Your task to perform on an android device: Clear all items from cart on amazon. Search for razer nari on amazon, select the first entry, add it to the cart, then select checkout. Image 0: 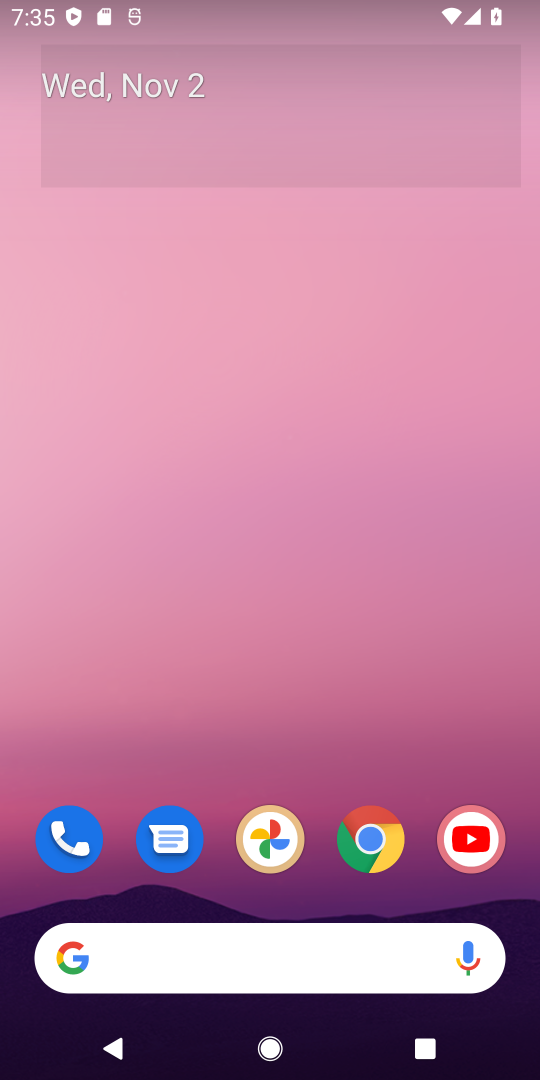
Step 0: click (369, 840)
Your task to perform on an android device: Clear all items from cart on amazon. Search for razer nari on amazon, select the first entry, add it to the cart, then select checkout. Image 1: 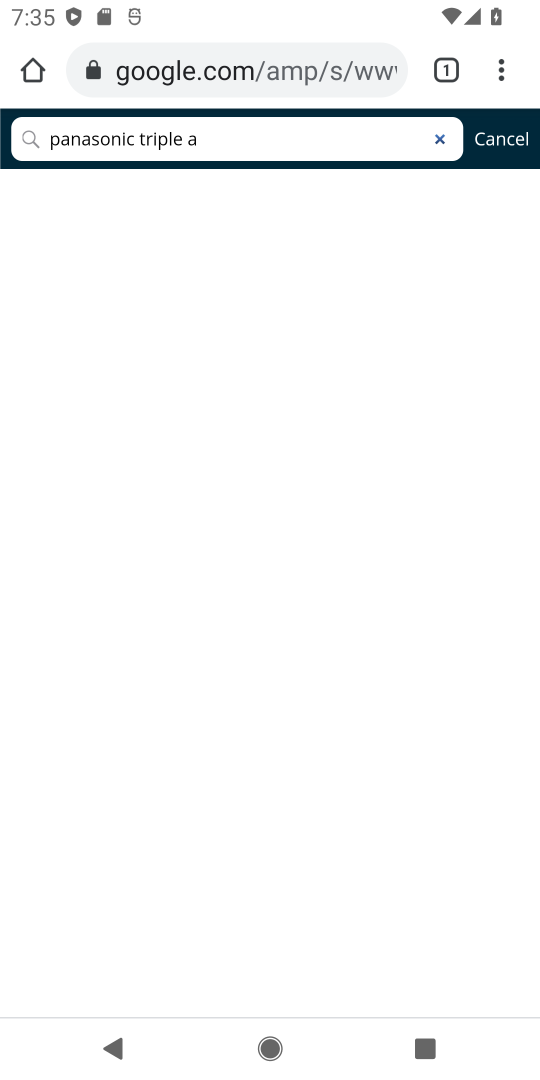
Step 1: click (348, 60)
Your task to perform on an android device: Clear all items from cart on amazon. Search for razer nari on amazon, select the first entry, add it to the cart, then select checkout. Image 2: 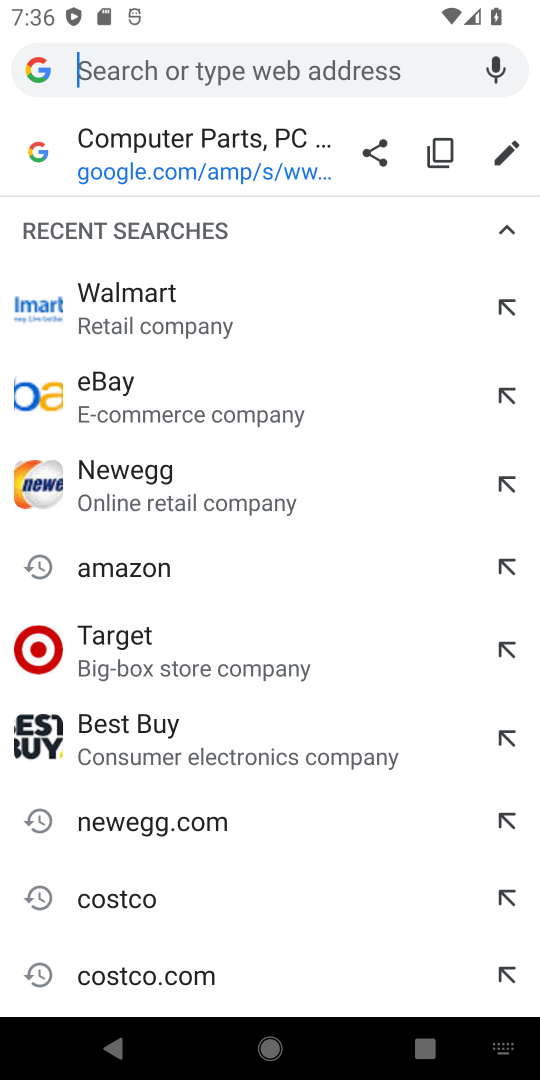
Step 2: type "amazon"
Your task to perform on an android device: Clear all items from cart on amazon. Search for razer nari on amazon, select the first entry, add it to the cart, then select checkout. Image 3: 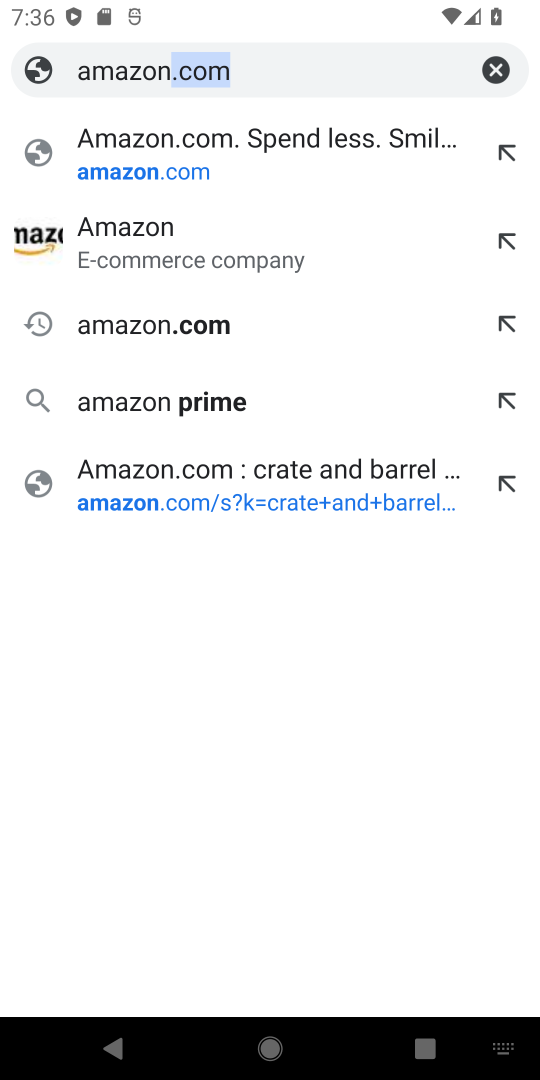
Step 3: click (202, 241)
Your task to perform on an android device: Clear all items from cart on amazon. Search for razer nari on amazon, select the first entry, add it to the cart, then select checkout. Image 4: 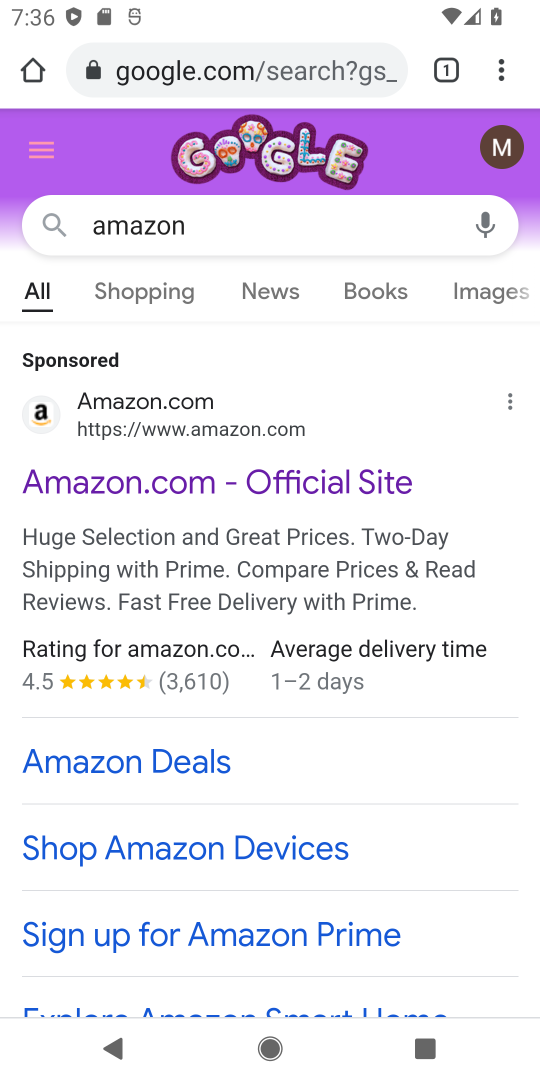
Step 4: drag from (365, 763) to (371, 376)
Your task to perform on an android device: Clear all items from cart on amazon. Search for razer nari on amazon, select the first entry, add it to the cart, then select checkout. Image 5: 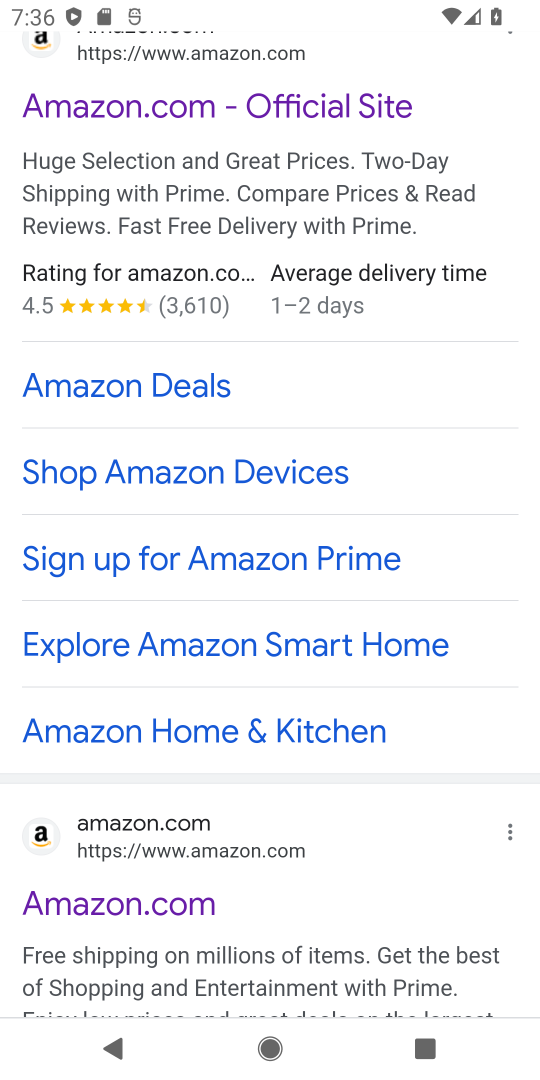
Step 5: click (281, 899)
Your task to perform on an android device: Clear all items from cart on amazon. Search for razer nari on amazon, select the first entry, add it to the cart, then select checkout. Image 6: 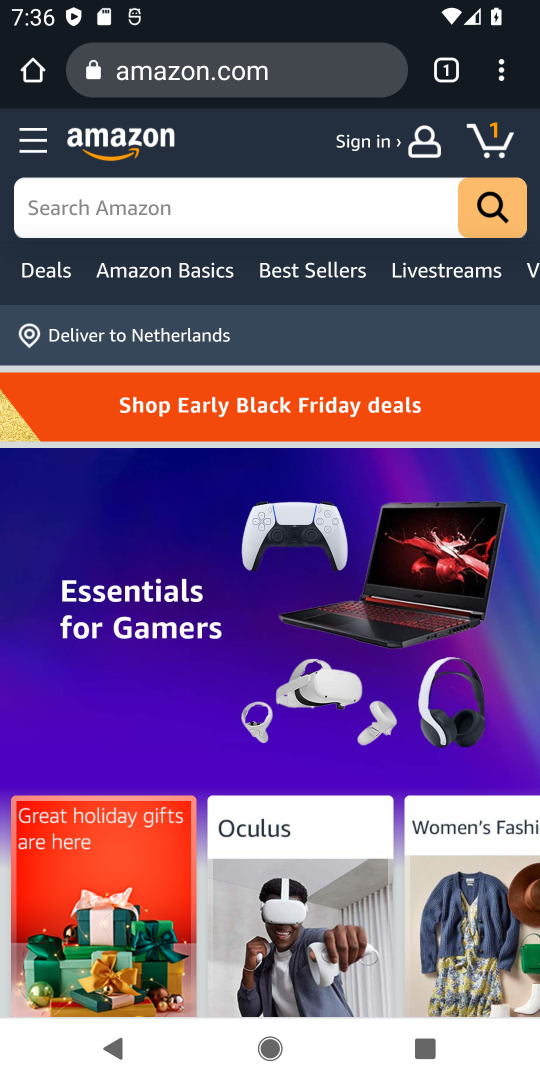
Step 6: click (504, 130)
Your task to perform on an android device: Clear all items from cart on amazon. Search for razer nari on amazon, select the first entry, add it to the cart, then select checkout. Image 7: 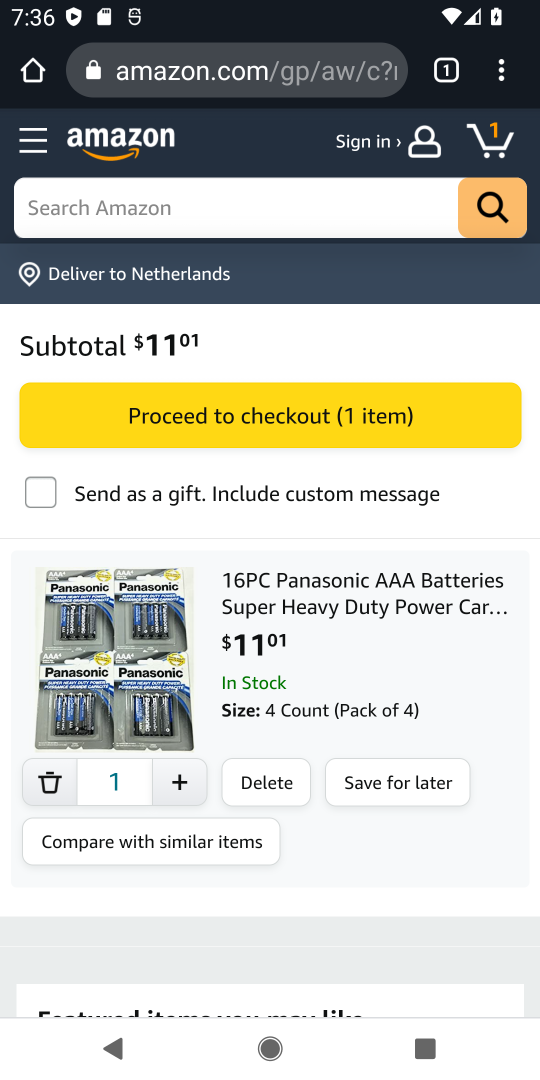
Step 7: click (273, 777)
Your task to perform on an android device: Clear all items from cart on amazon. Search for razer nari on amazon, select the first entry, add it to the cart, then select checkout. Image 8: 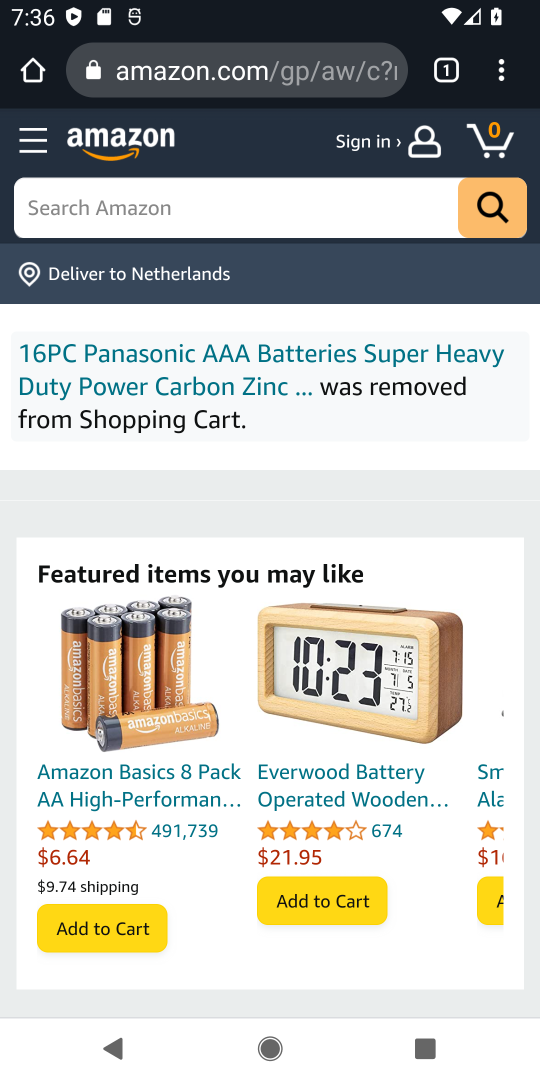
Step 8: click (350, 204)
Your task to perform on an android device: Clear all items from cart on amazon. Search for razer nari on amazon, select the first entry, add it to the cart, then select checkout. Image 9: 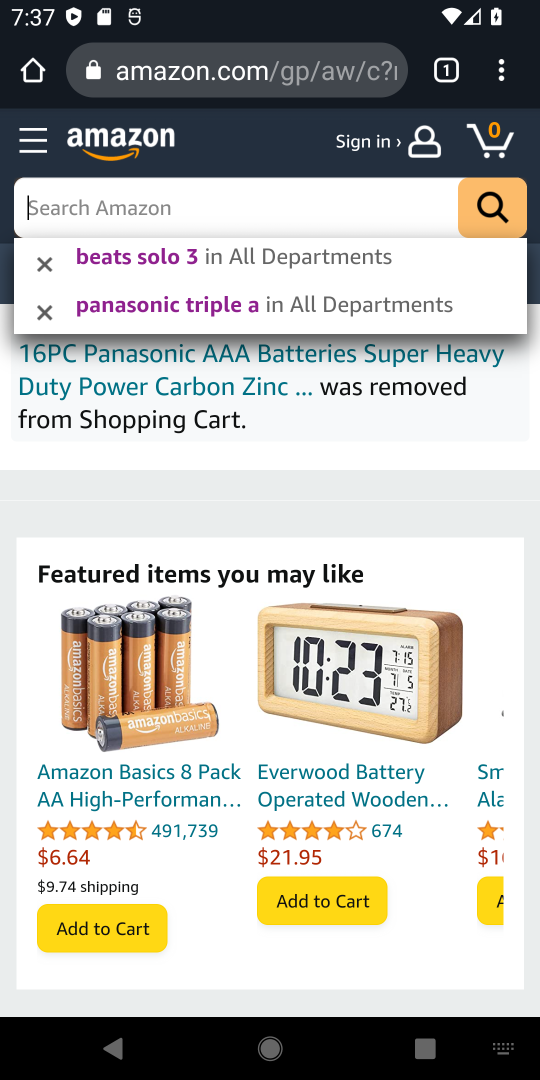
Step 9: type "razer nari"
Your task to perform on an android device: Clear all items from cart on amazon. Search for razer nari on amazon, select the first entry, add it to the cart, then select checkout. Image 10: 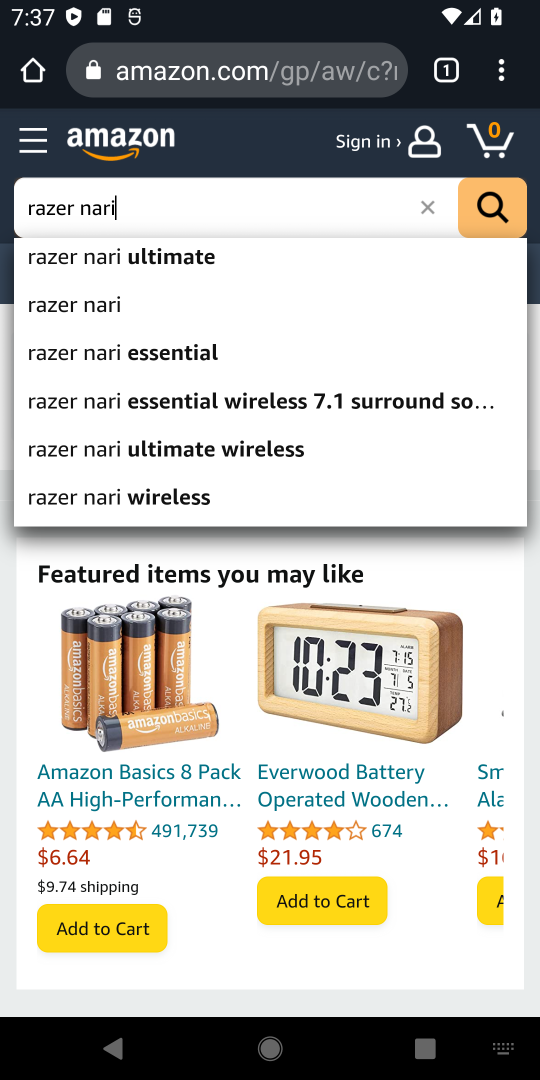
Step 10: click (486, 211)
Your task to perform on an android device: Clear all items from cart on amazon. Search for razer nari on amazon, select the first entry, add it to the cart, then select checkout. Image 11: 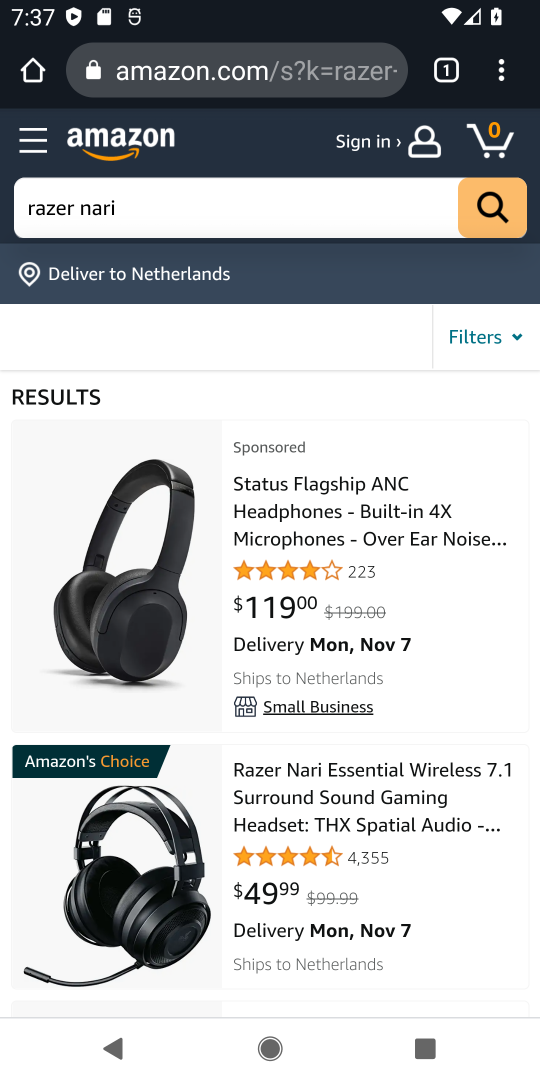
Step 11: drag from (401, 929) to (443, 631)
Your task to perform on an android device: Clear all items from cart on amazon. Search for razer nari on amazon, select the first entry, add it to the cart, then select checkout. Image 12: 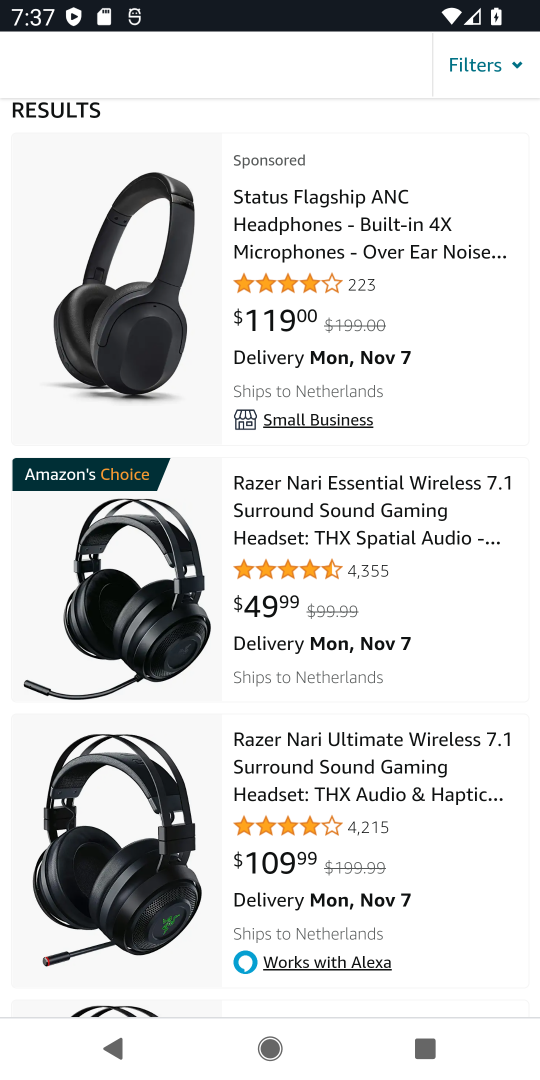
Step 12: click (389, 497)
Your task to perform on an android device: Clear all items from cart on amazon. Search for razer nari on amazon, select the first entry, add it to the cart, then select checkout. Image 13: 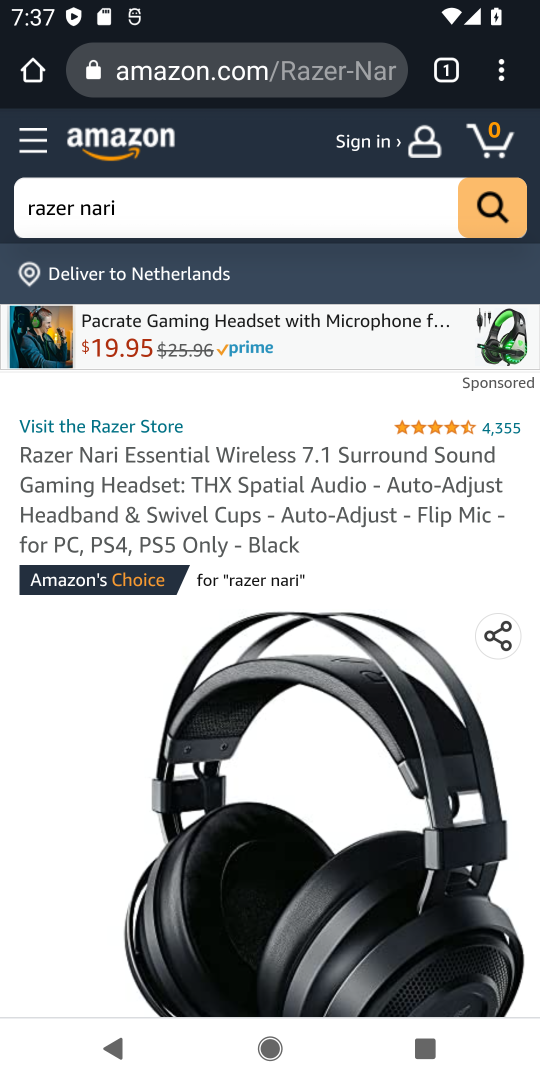
Step 13: drag from (304, 752) to (310, 391)
Your task to perform on an android device: Clear all items from cart on amazon. Search for razer nari on amazon, select the first entry, add it to the cart, then select checkout. Image 14: 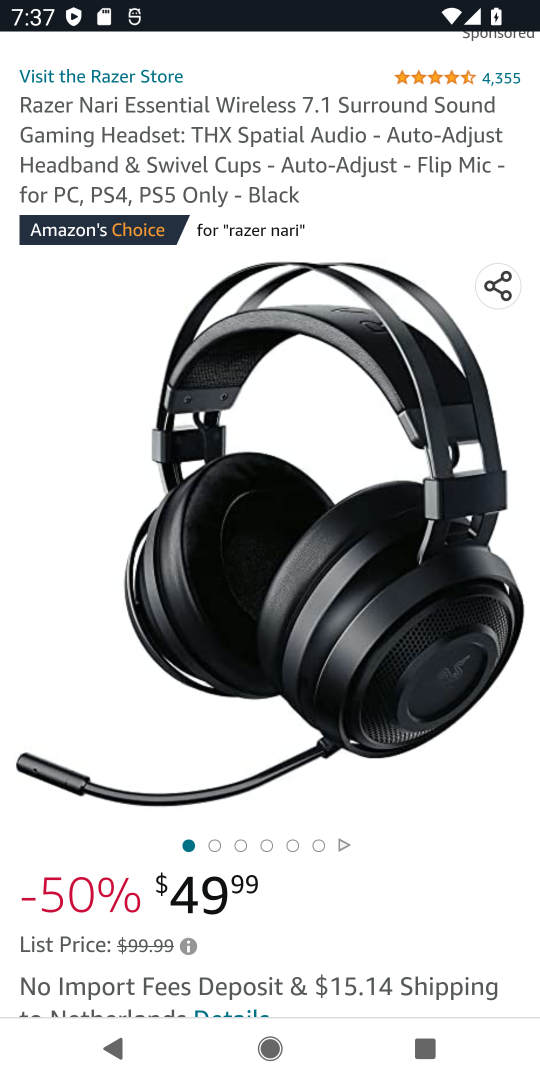
Step 14: drag from (236, 724) to (269, 172)
Your task to perform on an android device: Clear all items from cart on amazon. Search for razer nari on amazon, select the first entry, add it to the cart, then select checkout. Image 15: 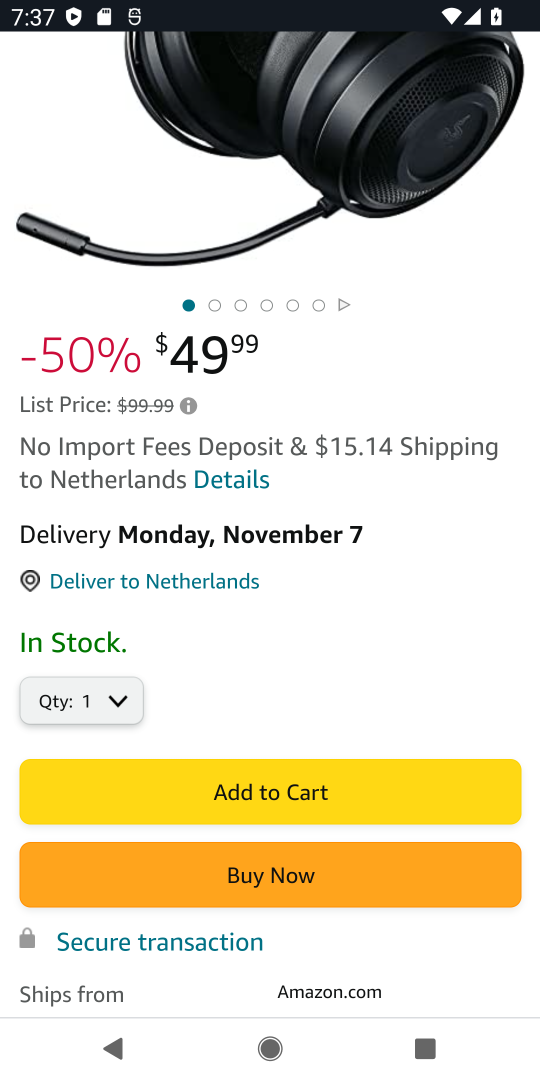
Step 15: click (270, 788)
Your task to perform on an android device: Clear all items from cart on amazon. Search for razer nari on amazon, select the first entry, add it to the cart, then select checkout. Image 16: 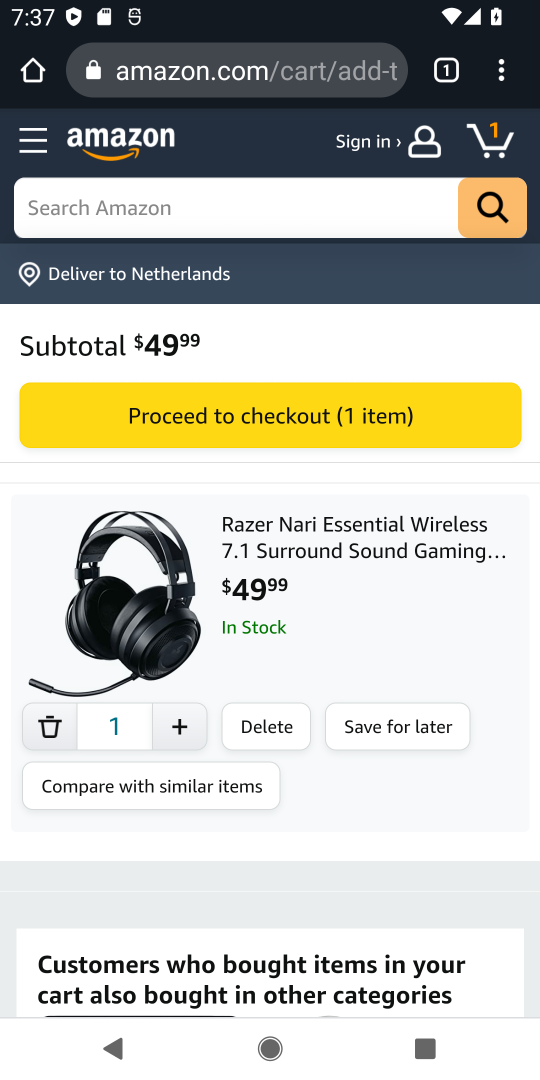
Step 16: click (271, 411)
Your task to perform on an android device: Clear all items from cart on amazon. Search for razer nari on amazon, select the first entry, add it to the cart, then select checkout. Image 17: 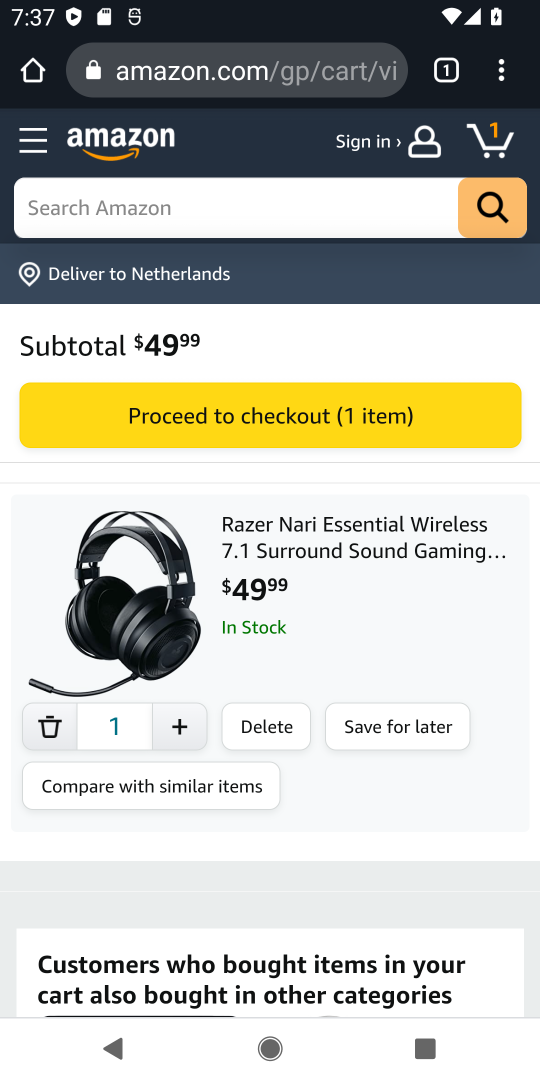
Step 17: click (277, 413)
Your task to perform on an android device: Clear all items from cart on amazon. Search for razer nari on amazon, select the first entry, add it to the cart, then select checkout. Image 18: 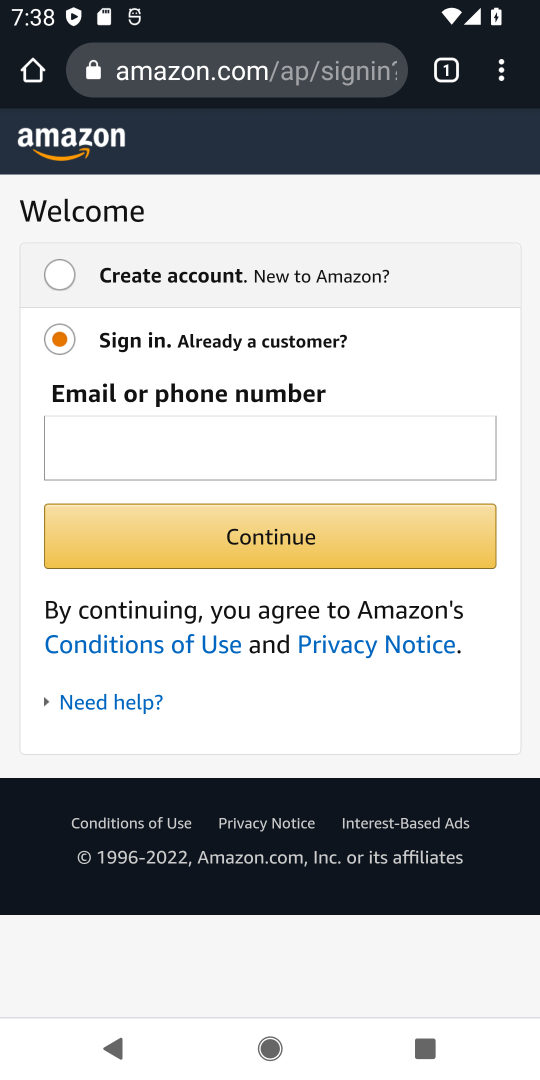
Step 18: task complete